Your task to perform on an android device: Open maps Image 0: 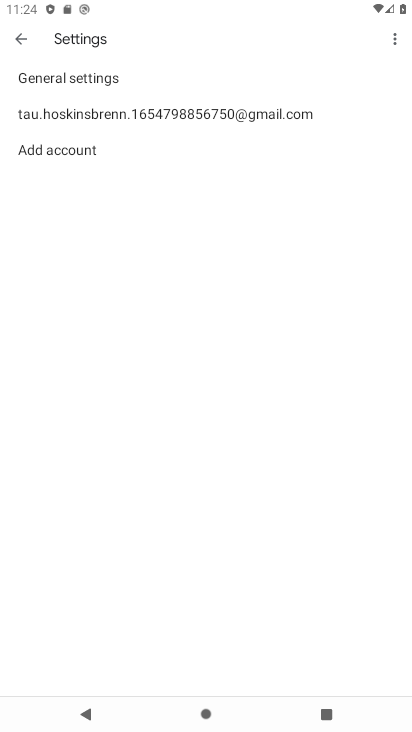
Step 0: press home button
Your task to perform on an android device: Open maps Image 1: 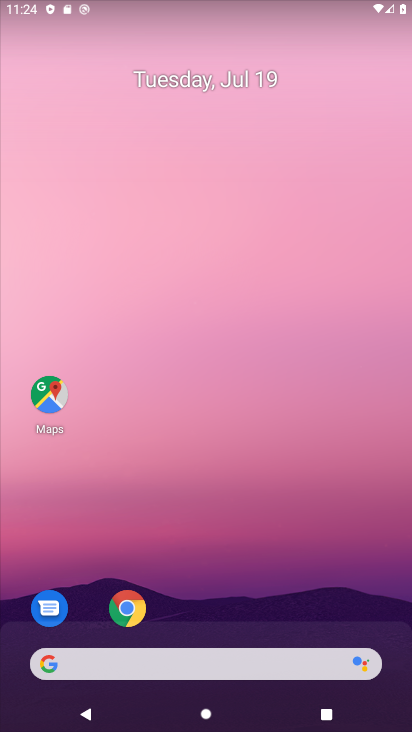
Step 1: click (50, 401)
Your task to perform on an android device: Open maps Image 2: 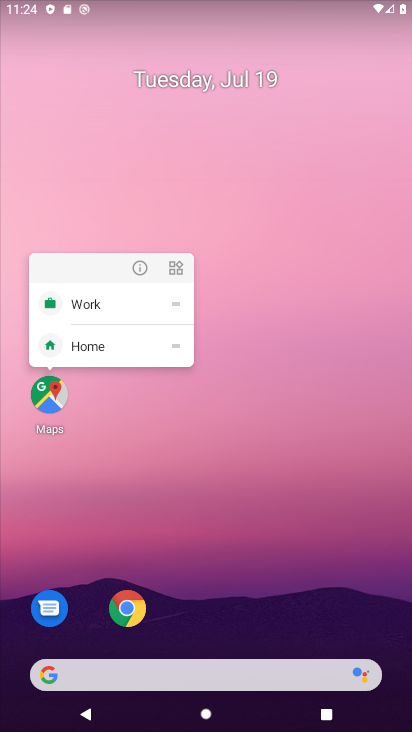
Step 2: click (53, 397)
Your task to perform on an android device: Open maps Image 3: 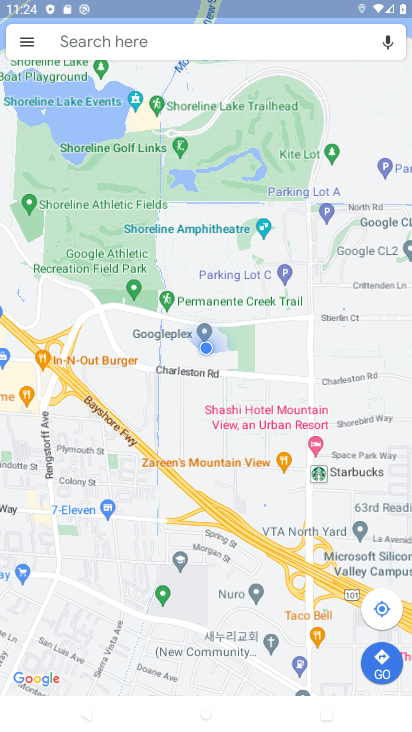
Step 3: task complete